Your task to perform on an android device: change timer sound Image 0: 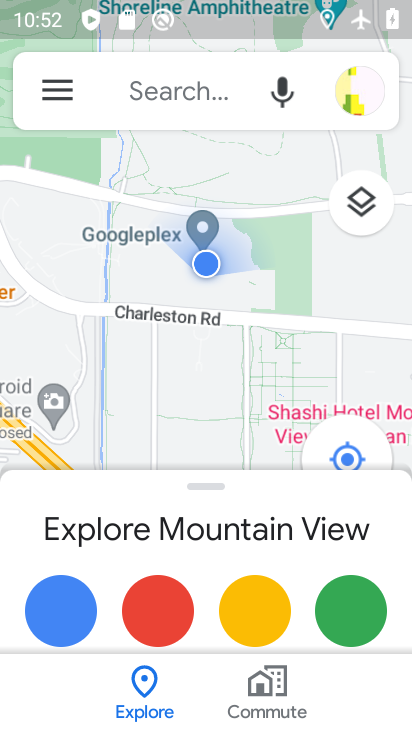
Step 0: press home button
Your task to perform on an android device: change timer sound Image 1: 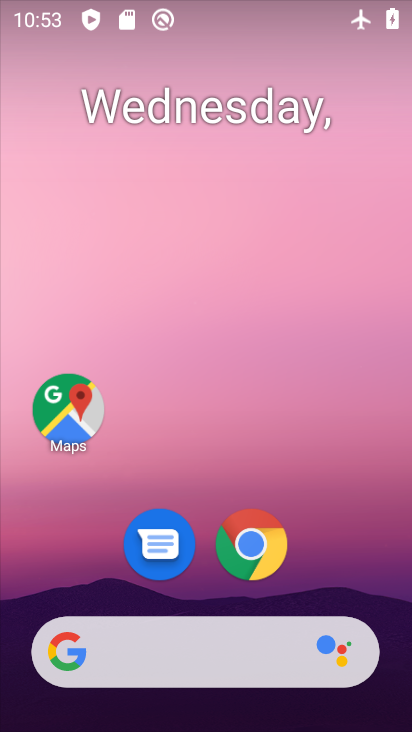
Step 1: drag from (300, 583) to (315, 70)
Your task to perform on an android device: change timer sound Image 2: 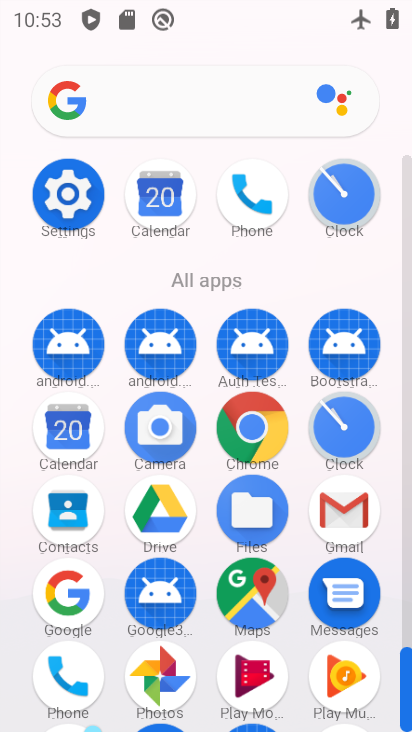
Step 2: click (340, 420)
Your task to perform on an android device: change timer sound Image 3: 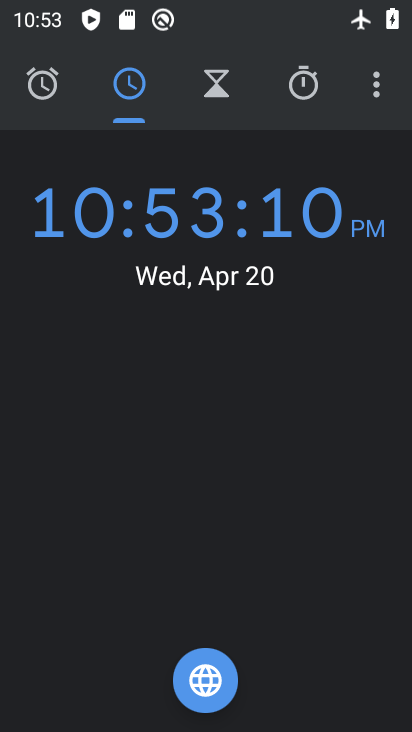
Step 3: click (383, 87)
Your task to perform on an android device: change timer sound Image 4: 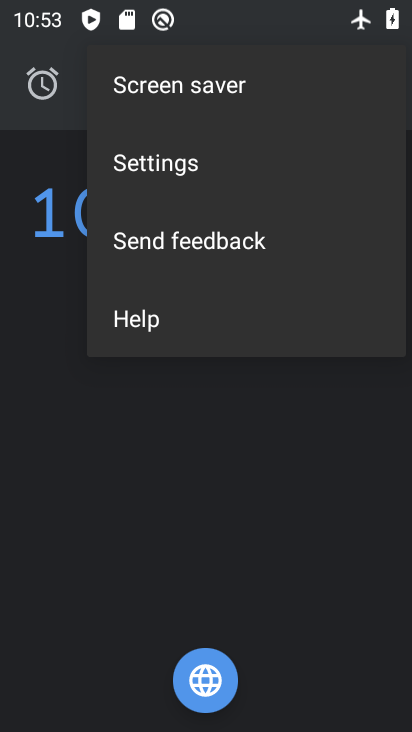
Step 4: click (248, 170)
Your task to perform on an android device: change timer sound Image 5: 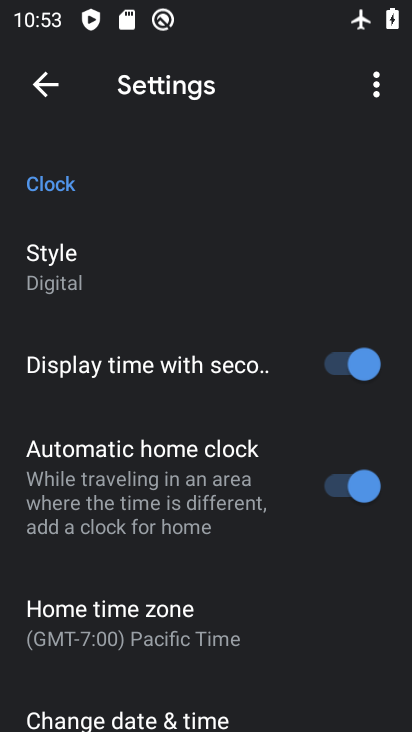
Step 5: drag from (243, 561) to (220, 133)
Your task to perform on an android device: change timer sound Image 6: 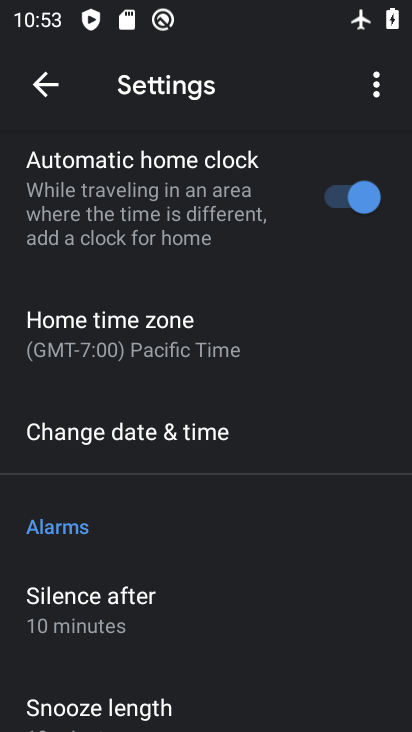
Step 6: drag from (203, 609) to (237, 167)
Your task to perform on an android device: change timer sound Image 7: 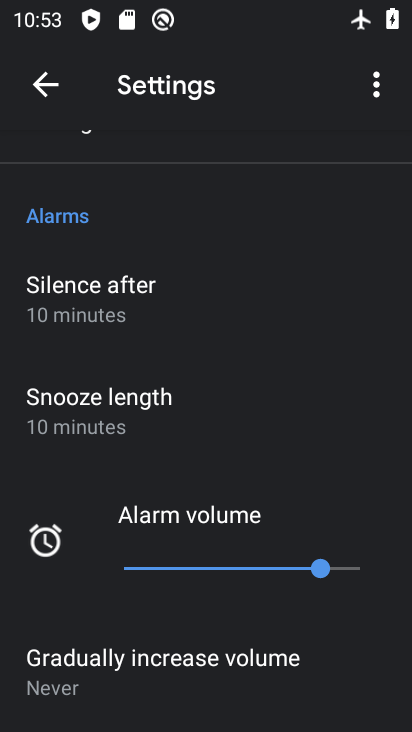
Step 7: drag from (193, 506) to (252, 197)
Your task to perform on an android device: change timer sound Image 8: 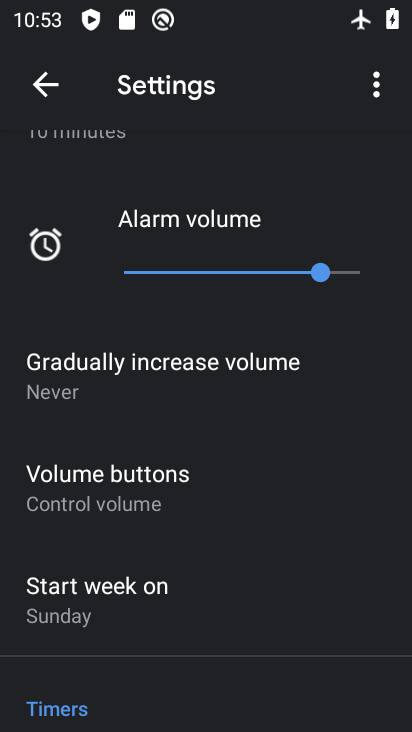
Step 8: drag from (225, 561) to (249, 209)
Your task to perform on an android device: change timer sound Image 9: 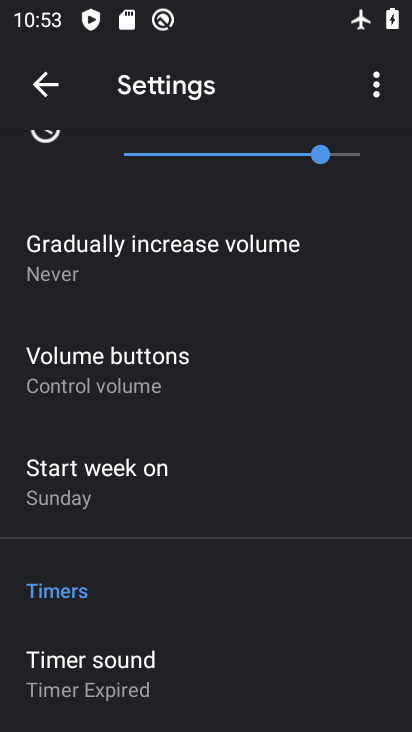
Step 9: click (129, 652)
Your task to perform on an android device: change timer sound Image 10: 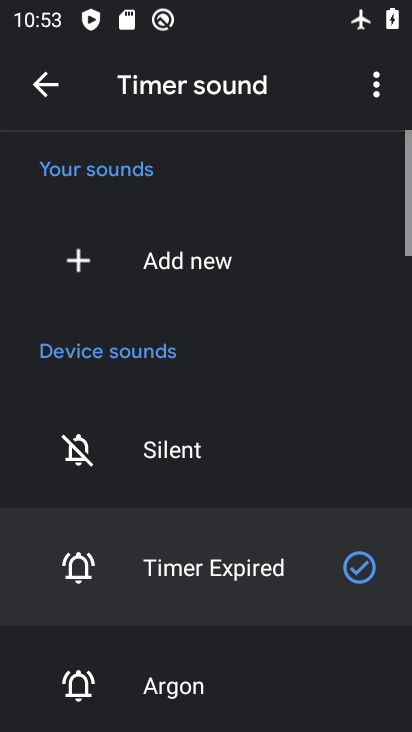
Step 10: click (186, 668)
Your task to perform on an android device: change timer sound Image 11: 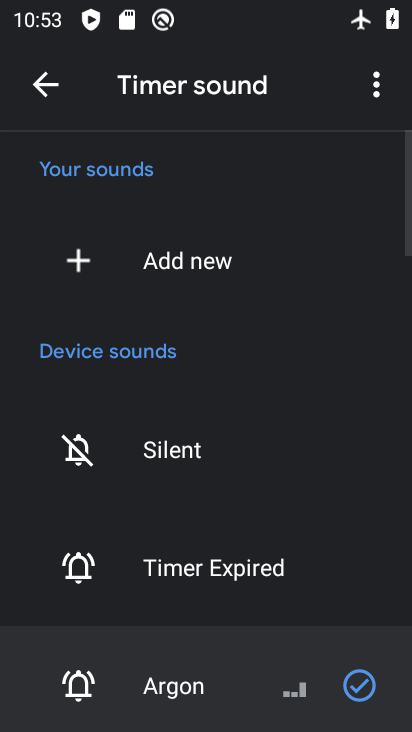
Step 11: task complete